Your task to perform on an android device: turn on improve location accuracy Image 0: 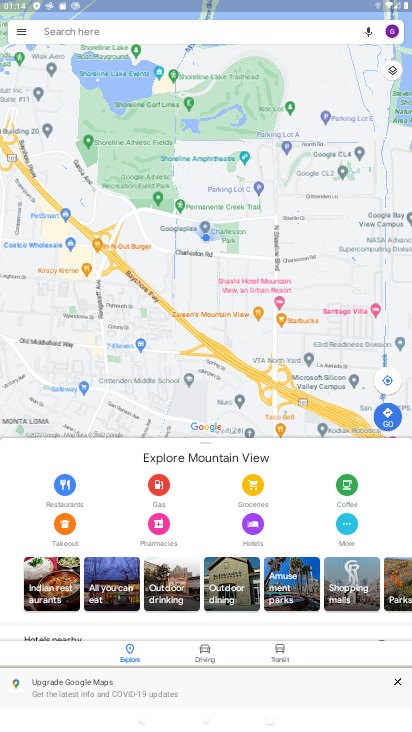
Step 0: press home button
Your task to perform on an android device: turn on improve location accuracy Image 1: 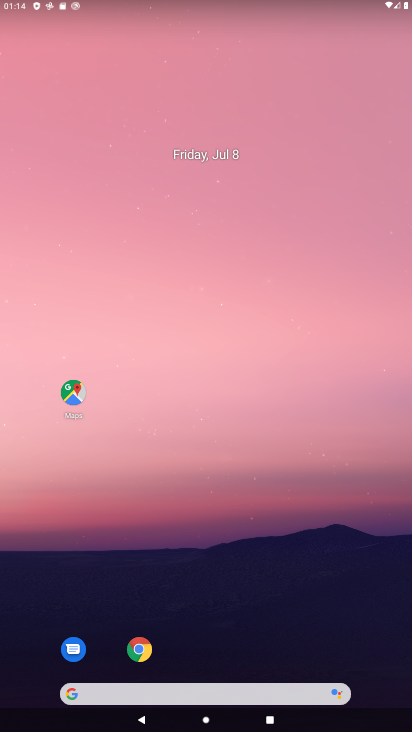
Step 1: drag from (317, 621) to (231, 50)
Your task to perform on an android device: turn on improve location accuracy Image 2: 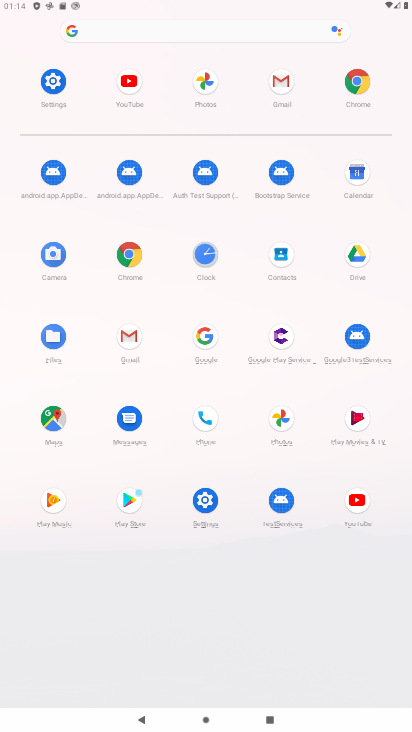
Step 2: click (50, 84)
Your task to perform on an android device: turn on improve location accuracy Image 3: 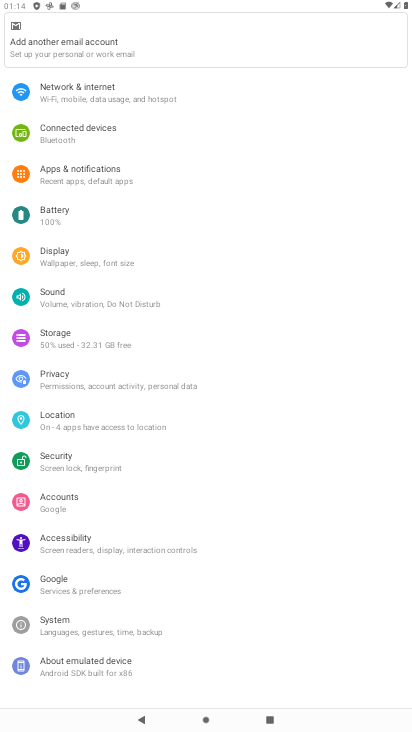
Step 3: click (112, 424)
Your task to perform on an android device: turn on improve location accuracy Image 4: 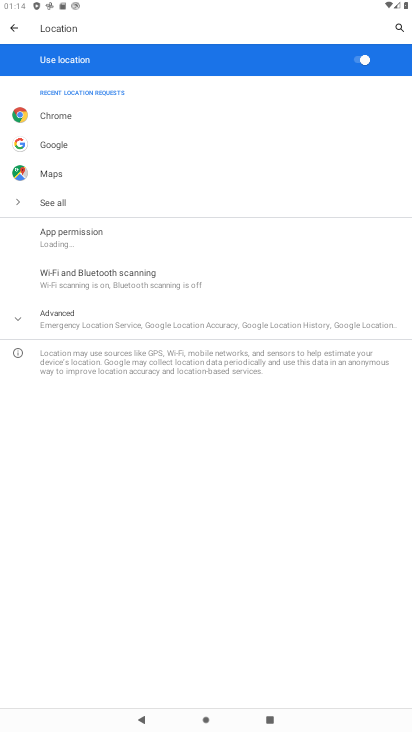
Step 4: click (95, 317)
Your task to perform on an android device: turn on improve location accuracy Image 5: 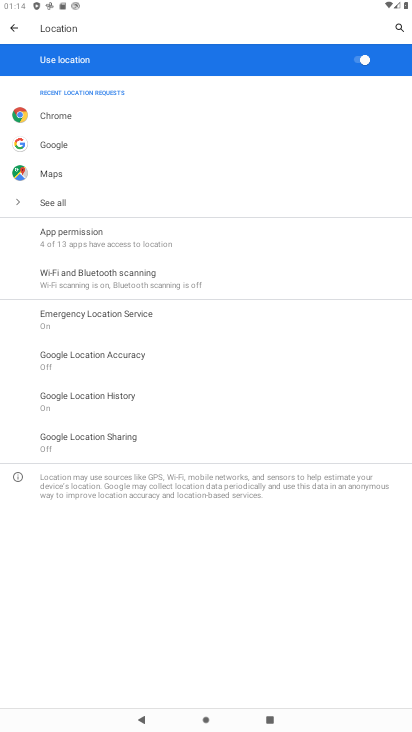
Step 5: click (102, 356)
Your task to perform on an android device: turn on improve location accuracy Image 6: 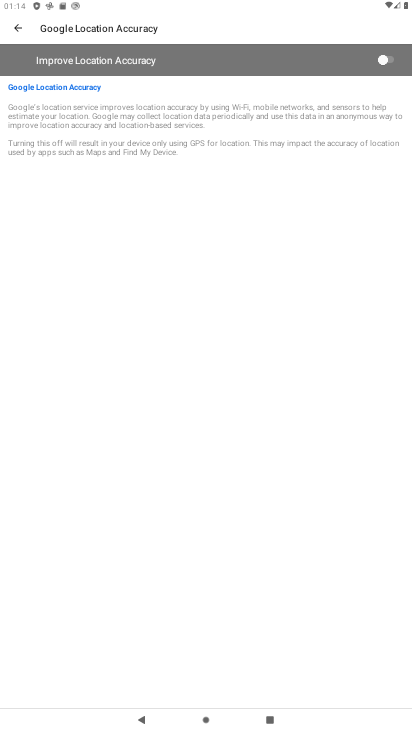
Step 6: click (374, 57)
Your task to perform on an android device: turn on improve location accuracy Image 7: 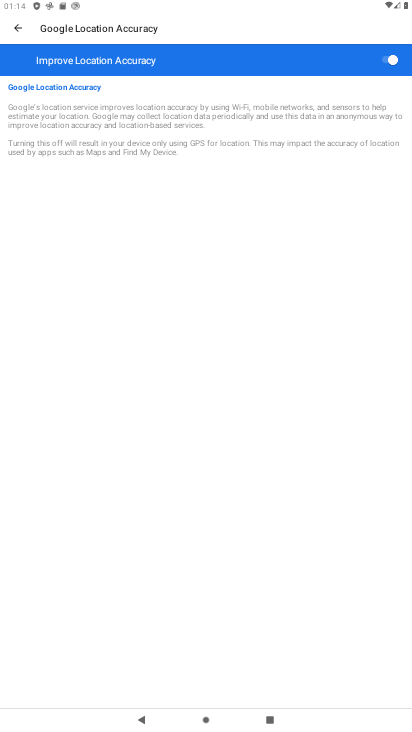
Step 7: task complete